Your task to perform on an android device: Open privacy settings Image 0: 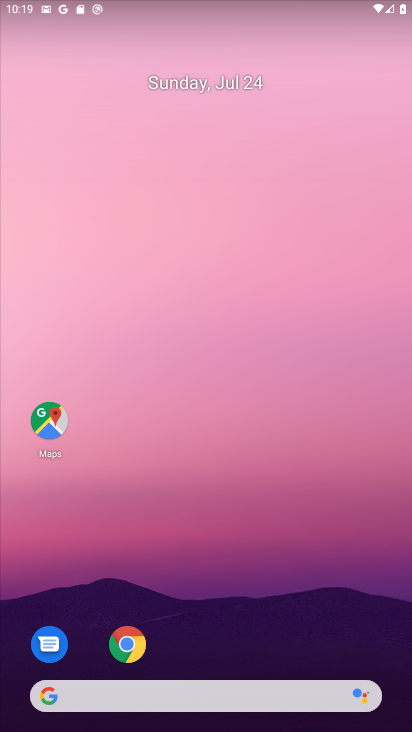
Step 0: drag from (218, 669) to (295, 209)
Your task to perform on an android device: Open privacy settings Image 1: 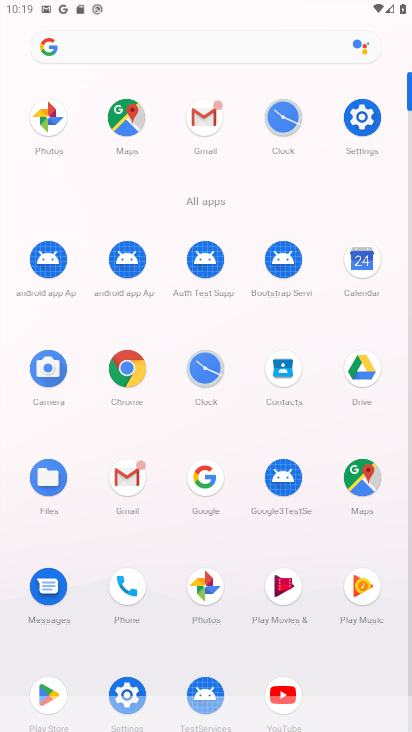
Step 1: drag from (199, 647) to (180, 293)
Your task to perform on an android device: Open privacy settings Image 2: 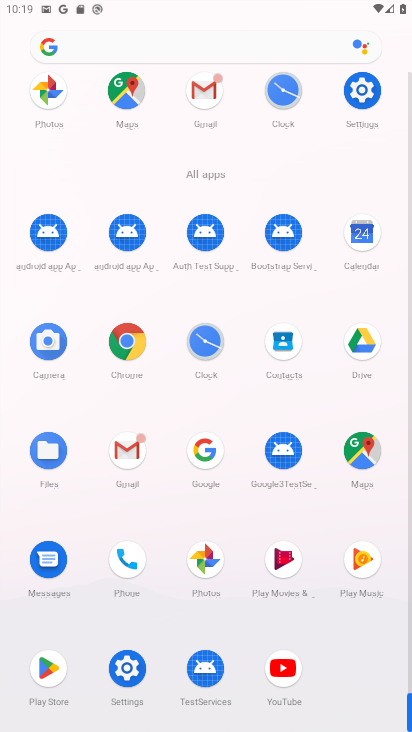
Step 2: click (353, 101)
Your task to perform on an android device: Open privacy settings Image 3: 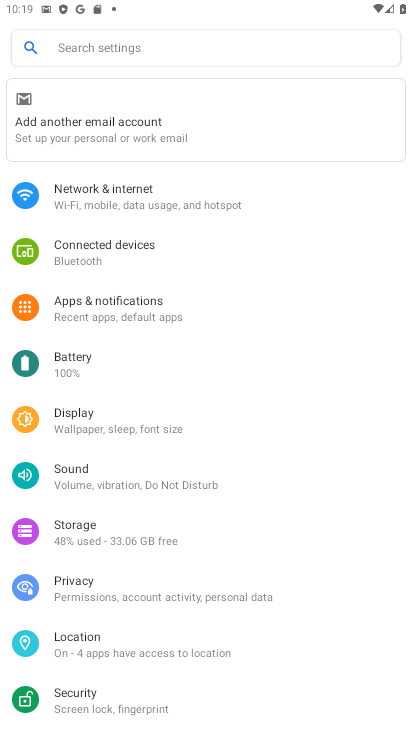
Step 3: click (90, 597)
Your task to perform on an android device: Open privacy settings Image 4: 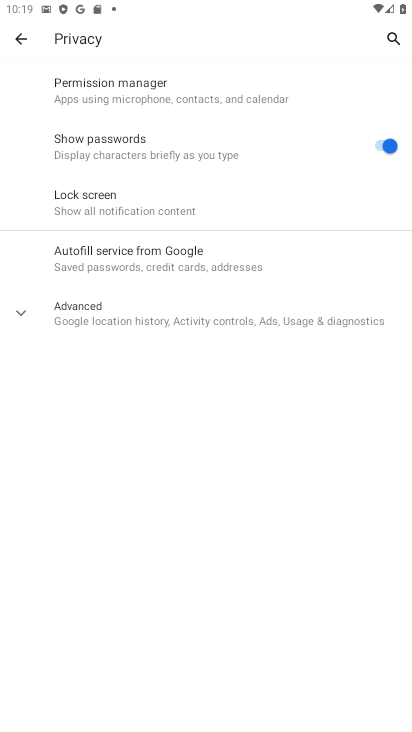
Step 4: task complete